Your task to perform on an android device: toggle wifi Image 0: 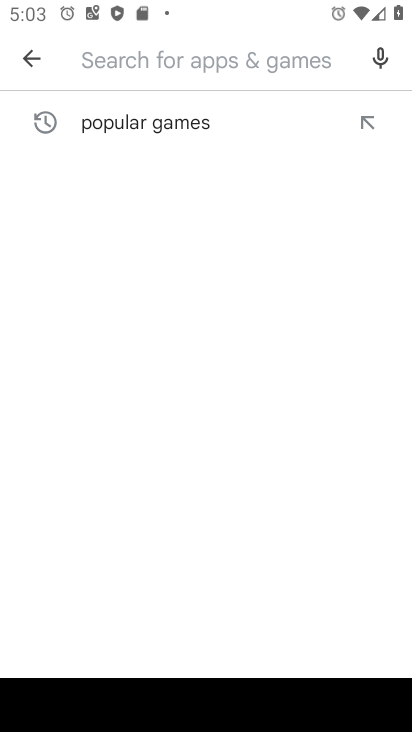
Step 0: press home button
Your task to perform on an android device: toggle wifi Image 1: 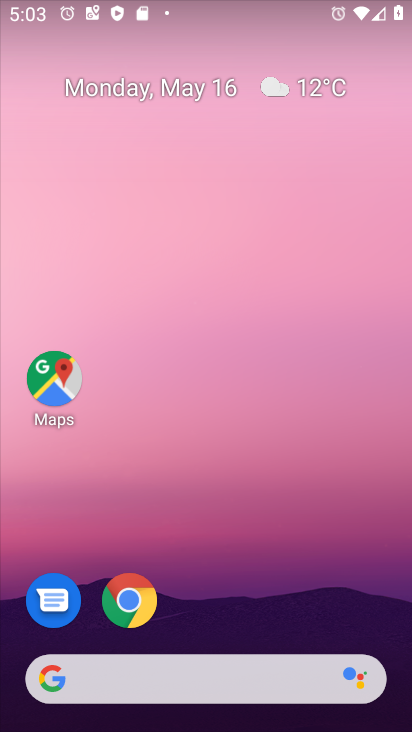
Step 1: drag from (191, 653) to (190, 362)
Your task to perform on an android device: toggle wifi Image 2: 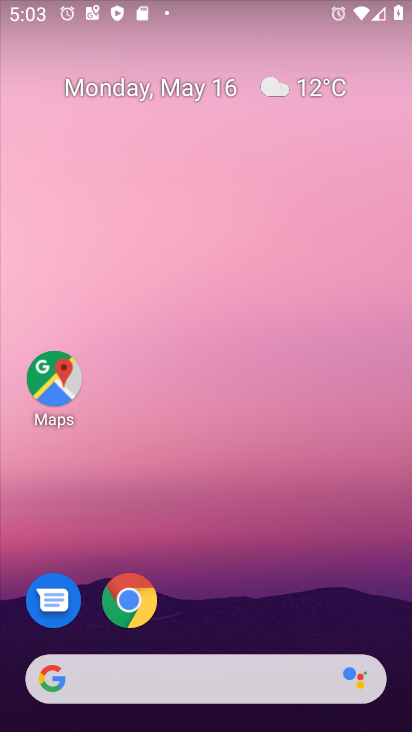
Step 2: drag from (224, 659) to (238, 306)
Your task to perform on an android device: toggle wifi Image 3: 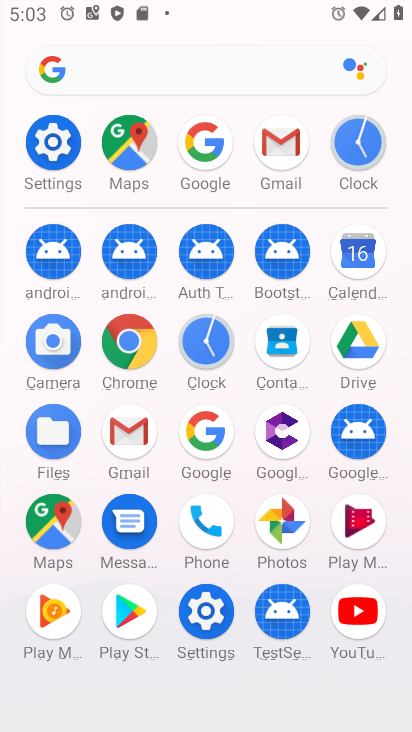
Step 3: click (56, 139)
Your task to perform on an android device: toggle wifi Image 4: 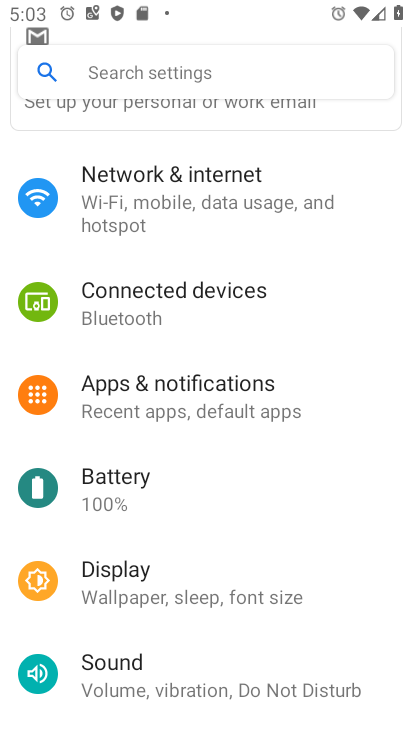
Step 4: click (151, 219)
Your task to perform on an android device: toggle wifi Image 5: 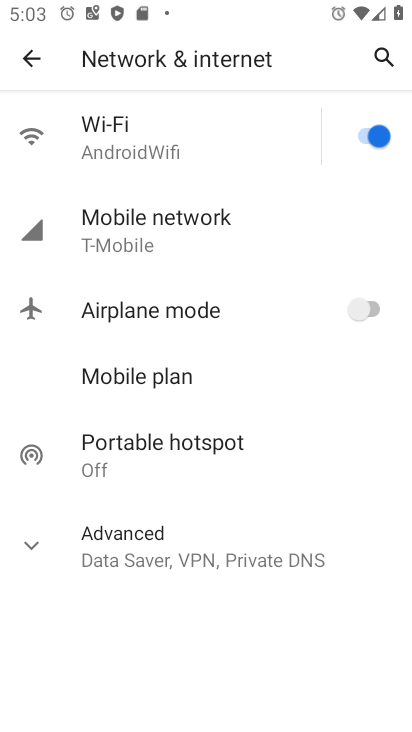
Step 5: click (357, 139)
Your task to perform on an android device: toggle wifi Image 6: 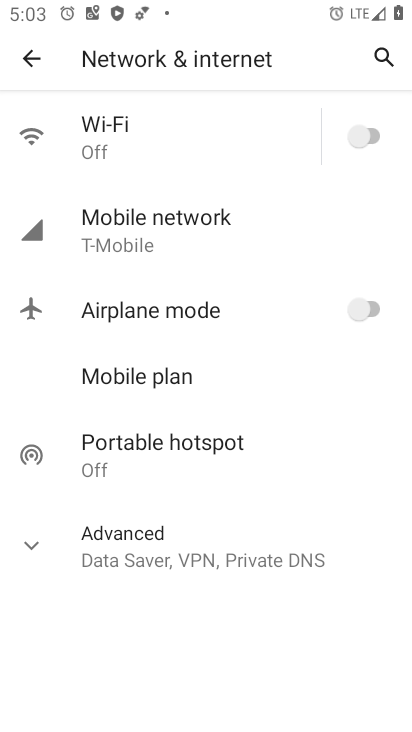
Step 6: task complete